Your task to perform on an android device: Open calendar and show me the first week of next month Image 0: 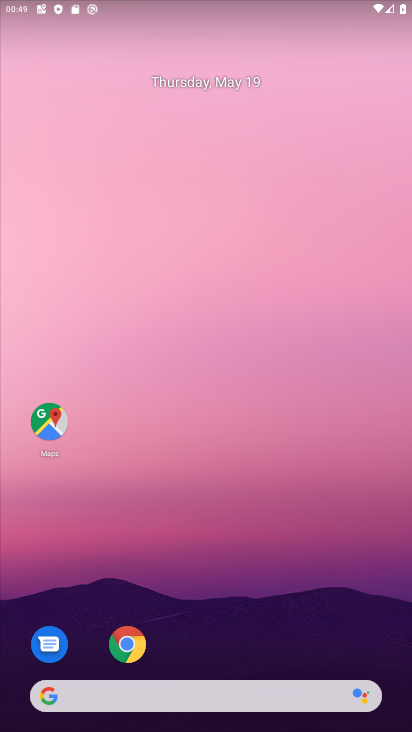
Step 0: drag from (365, 606) to (294, 155)
Your task to perform on an android device: Open calendar and show me the first week of next month Image 1: 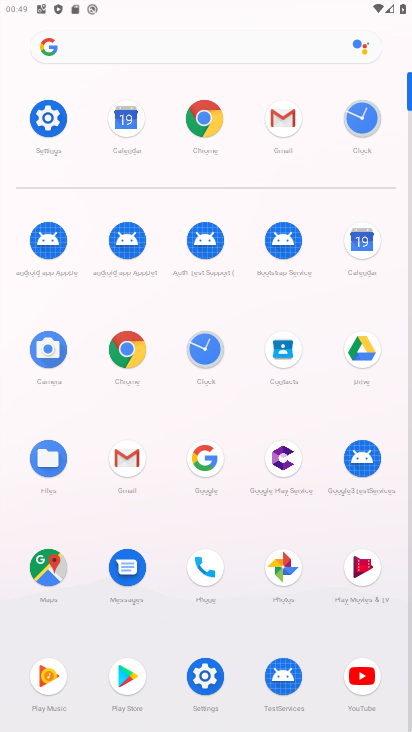
Step 1: click (366, 241)
Your task to perform on an android device: Open calendar and show me the first week of next month Image 2: 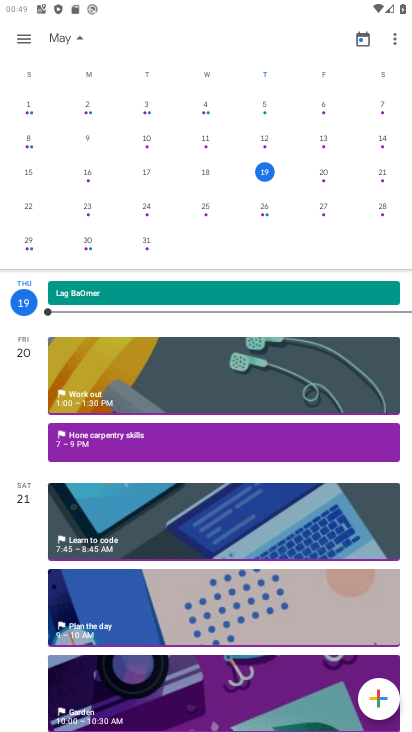
Step 2: task complete